Your task to perform on an android device: What's the news about the US stock market? Image 0: 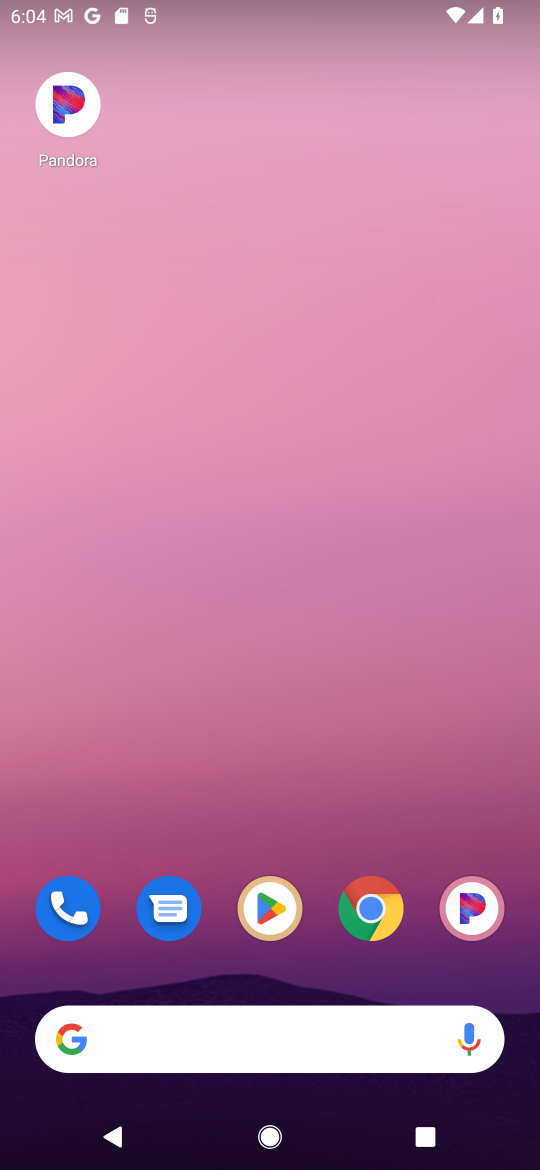
Step 0: drag from (330, 972) to (274, 113)
Your task to perform on an android device: What's the news about the US stock market? Image 1: 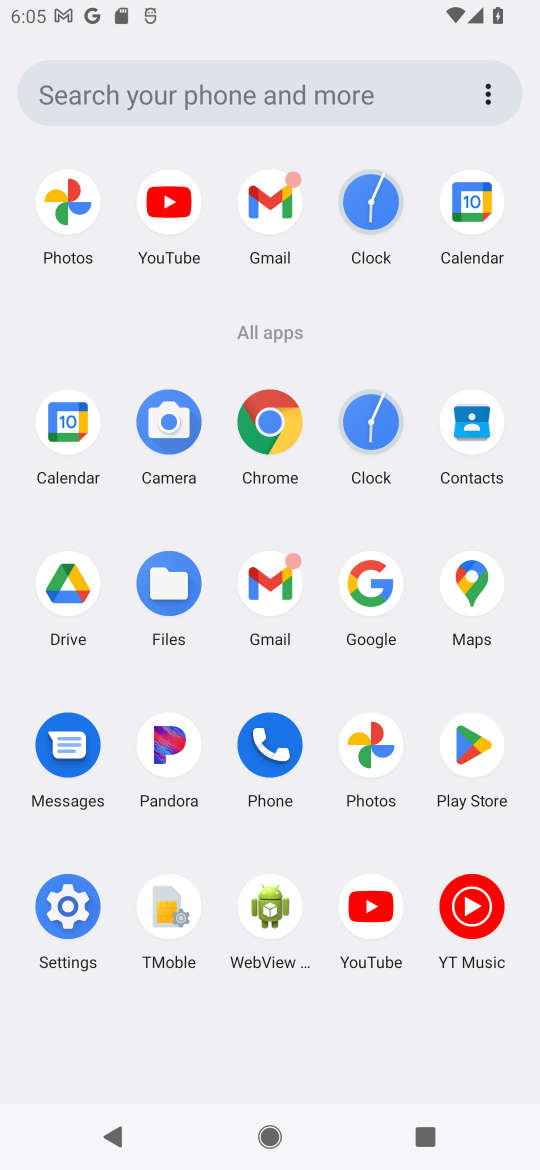
Step 1: click (262, 414)
Your task to perform on an android device: What's the news about the US stock market? Image 2: 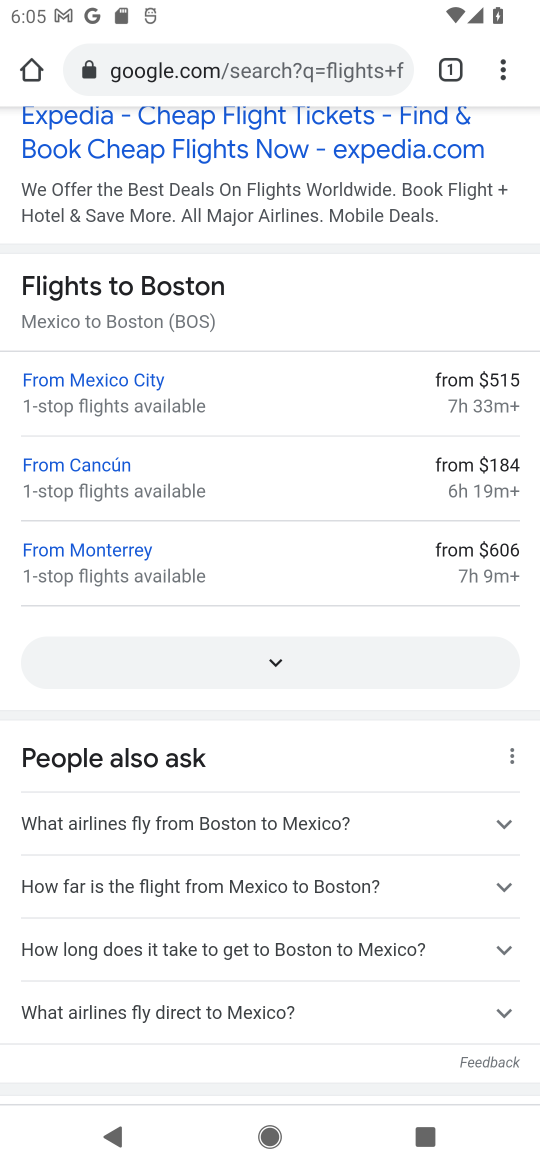
Step 2: click (264, 48)
Your task to perform on an android device: What's the news about the US stock market? Image 3: 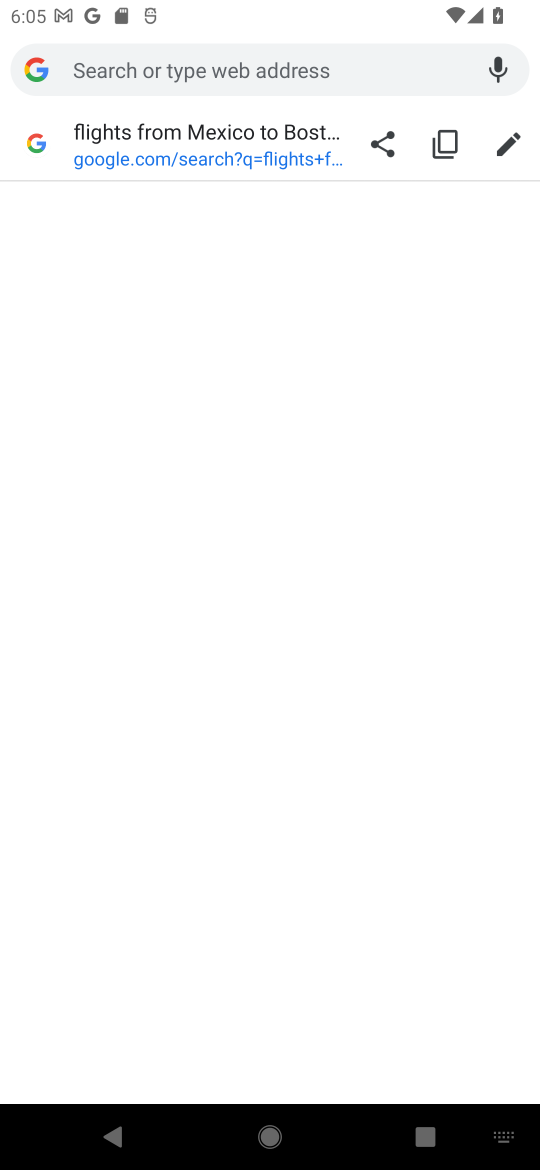
Step 3: type "What's the news about the US stock market?"
Your task to perform on an android device: What's the news about the US stock market? Image 4: 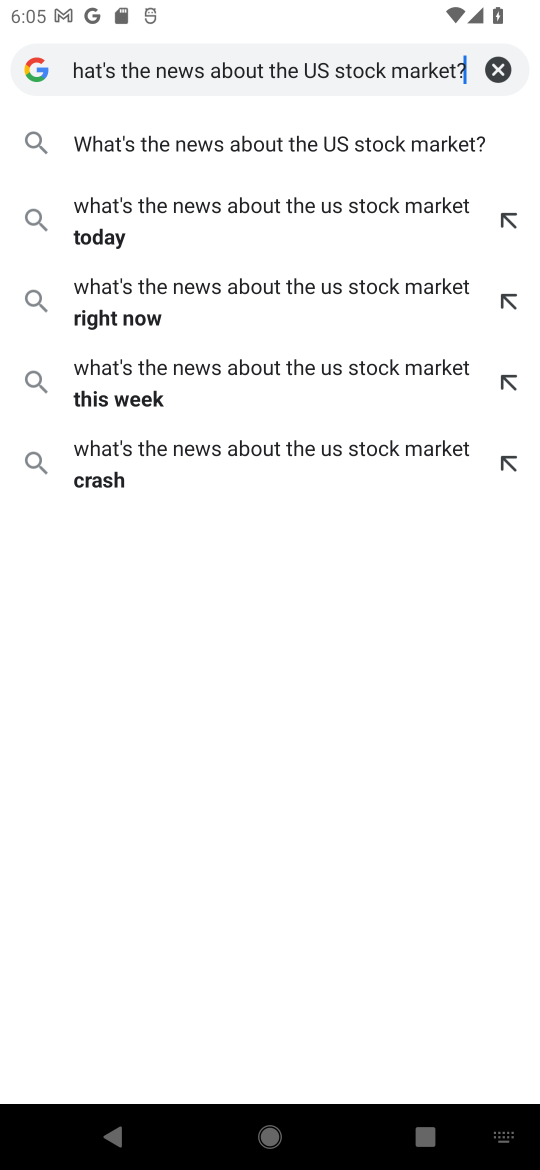
Step 4: press enter
Your task to perform on an android device: What's the news about the US stock market? Image 5: 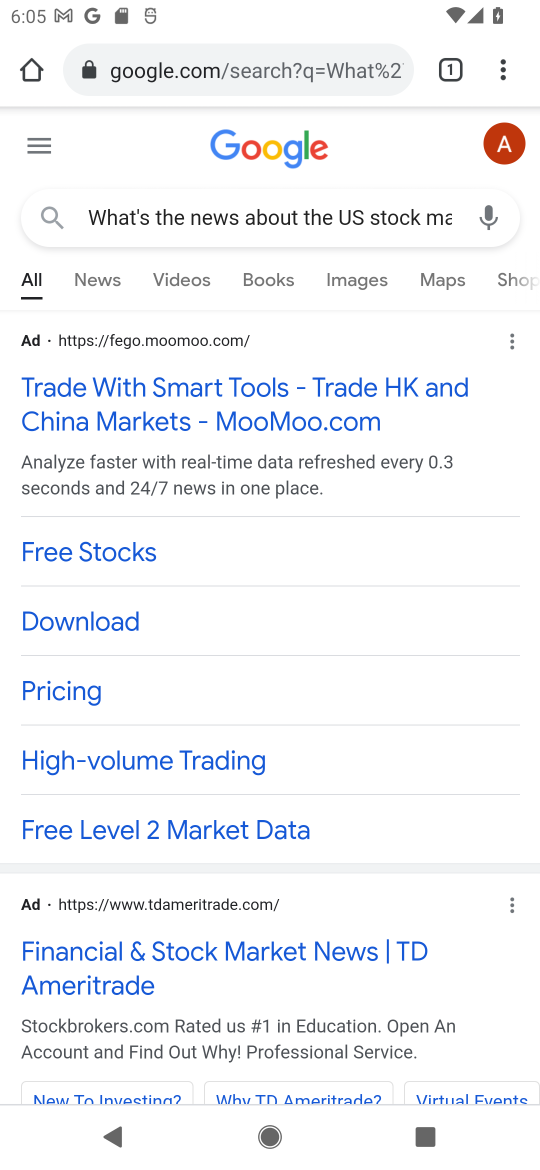
Step 5: drag from (285, 848) to (324, 108)
Your task to perform on an android device: What's the news about the US stock market? Image 6: 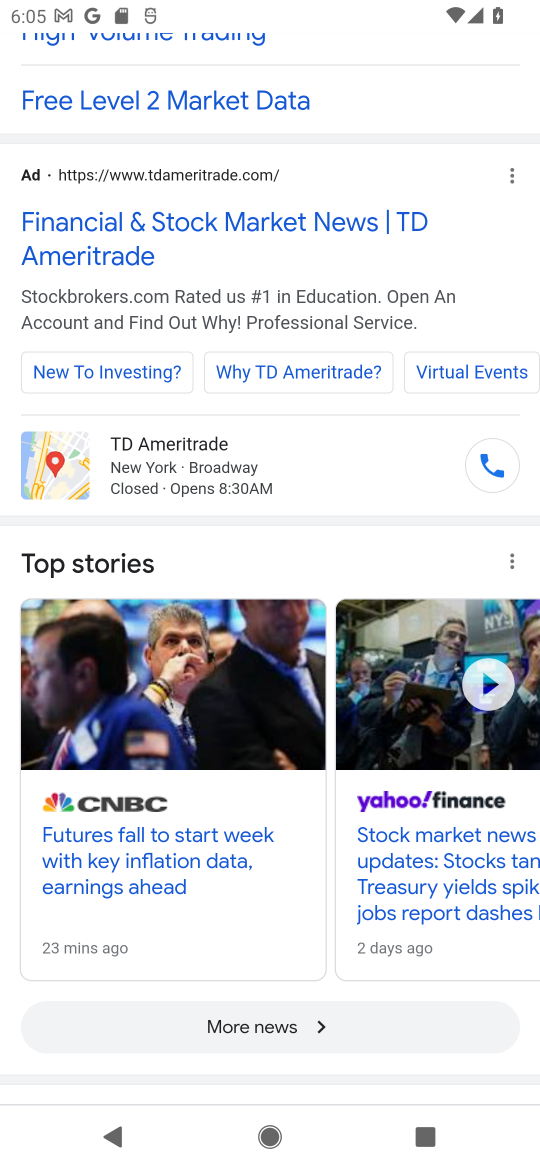
Step 6: drag from (265, 903) to (304, 194)
Your task to perform on an android device: What's the news about the US stock market? Image 7: 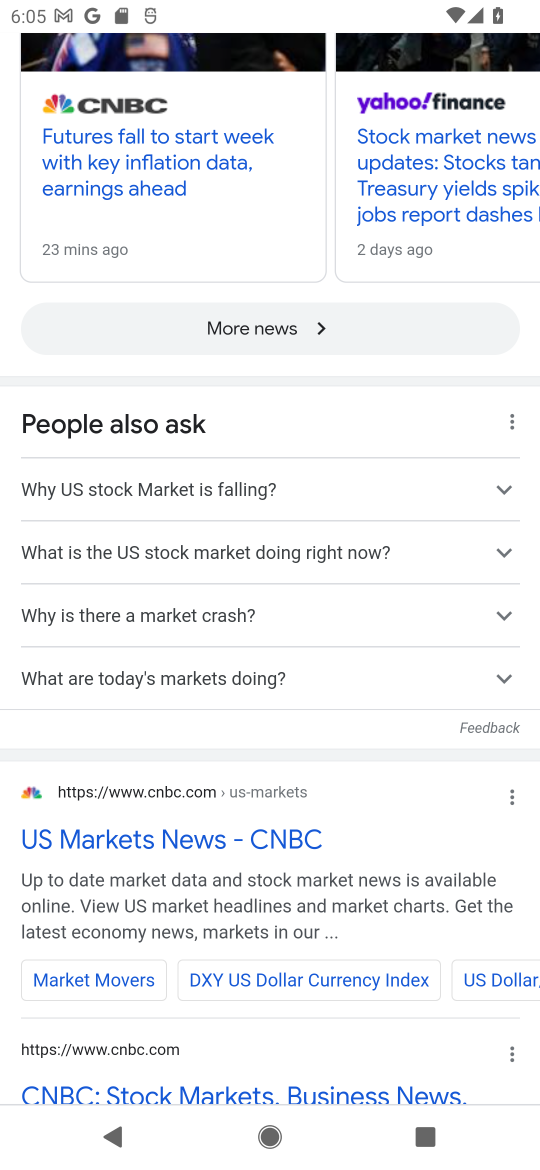
Step 7: click (209, 830)
Your task to perform on an android device: What's the news about the US stock market? Image 8: 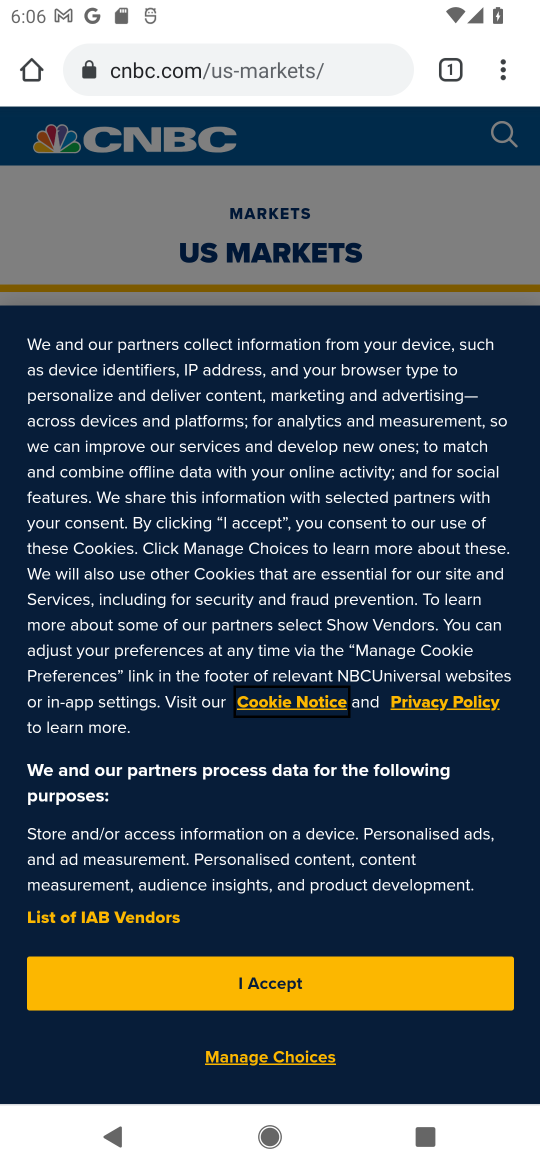
Step 8: task complete